Your task to perform on an android device: turn pop-ups on in chrome Image 0: 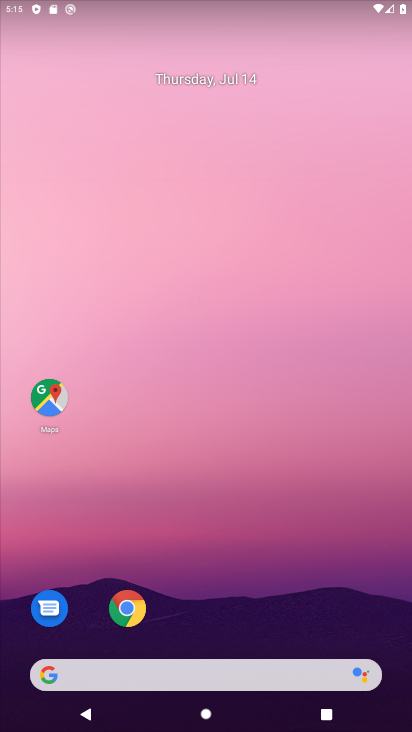
Step 0: click (128, 608)
Your task to perform on an android device: turn pop-ups on in chrome Image 1: 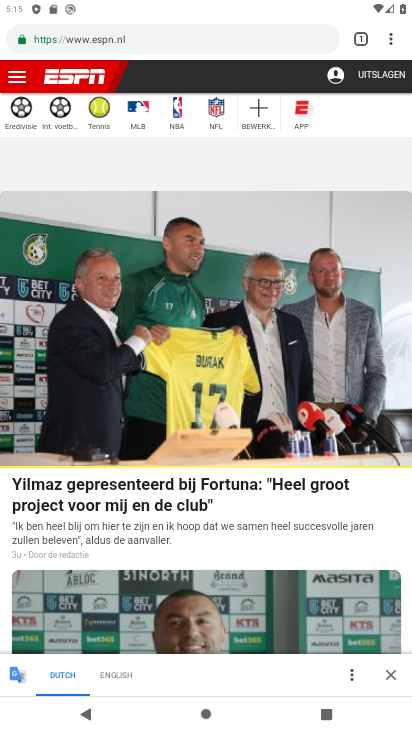
Step 1: click (391, 40)
Your task to perform on an android device: turn pop-ups on in chrome Image 2: 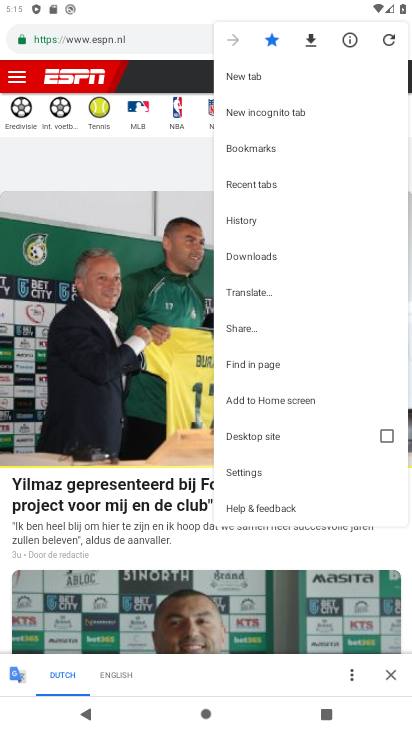
Step 2: click (256, 471)
Your task to perform on an android device: turn pop-ups on in chrome Image 3: 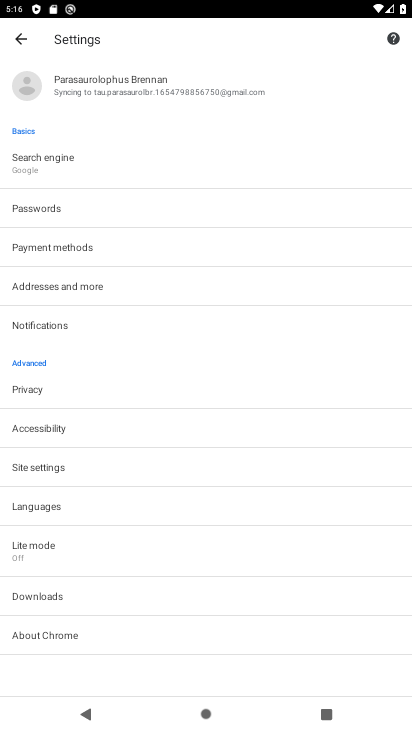
Step 3: click (43, 467)
Your task to perform on an android device: turn pop-ups on in chrome Image 4: 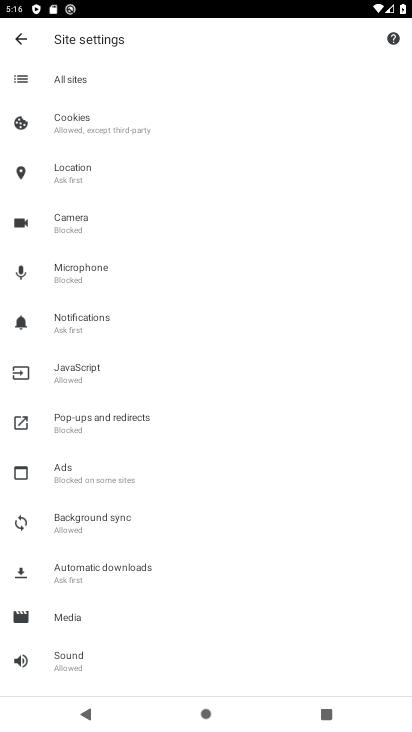
Step 4: click (67, 420)
Your task to perform on an android device: turn pop-ups on in chrome Image 5: 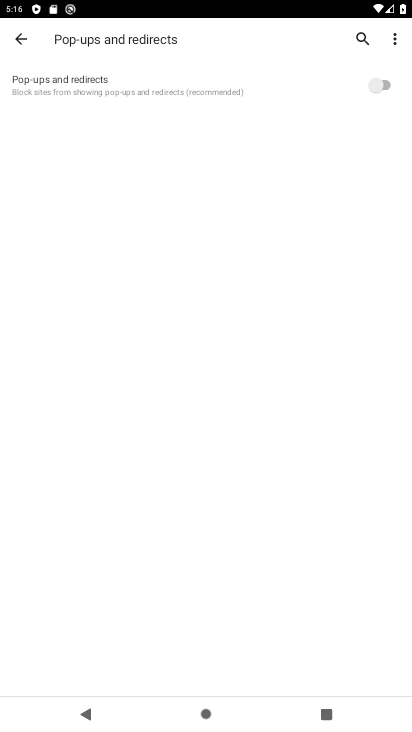
Step 5: click (372, 83)
Your task to perform on an android device: turn pop-ups on in chrome Image 6: 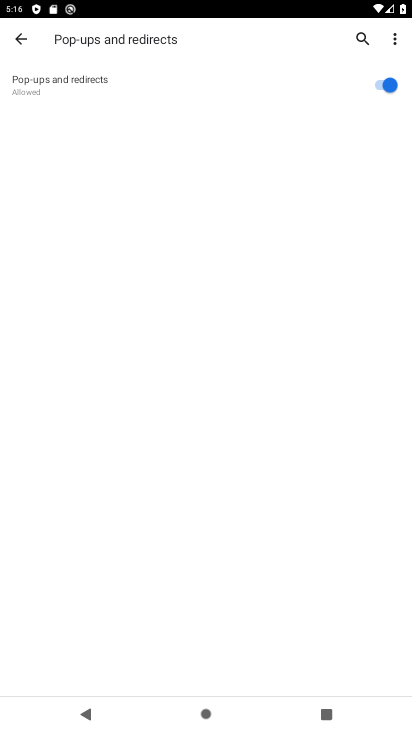
Step 6: task complete